Your task to perform on an android device: Open the web browser Image 0: 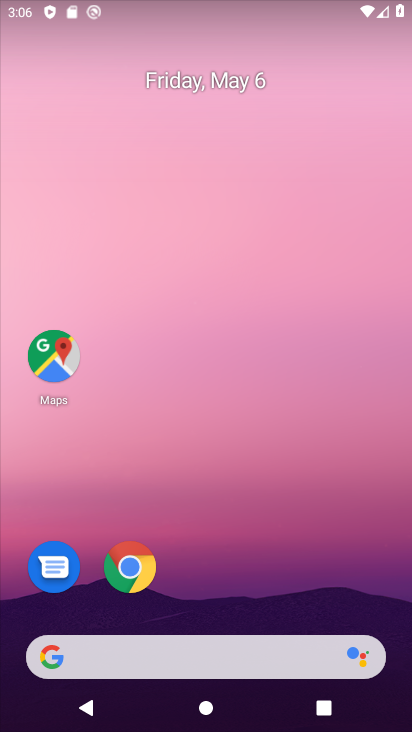
Step 0: drag from (208, 589) to (257, 391)
Your task to perform on an android device: Open the web browser Image 1: 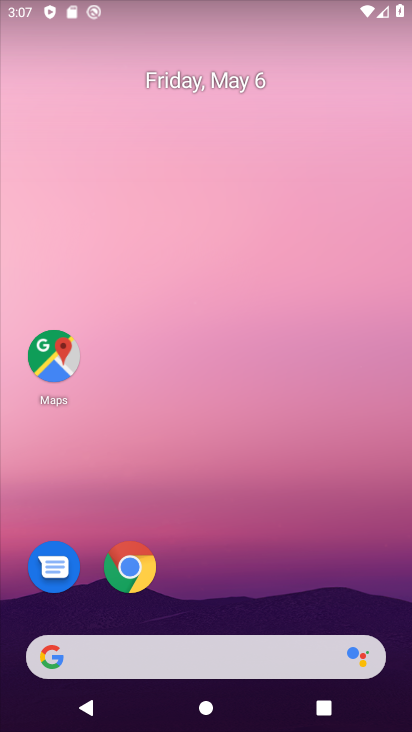
Step 1: click (133, 570)
Your task to perform on an android device: Open the web browser Image 2: 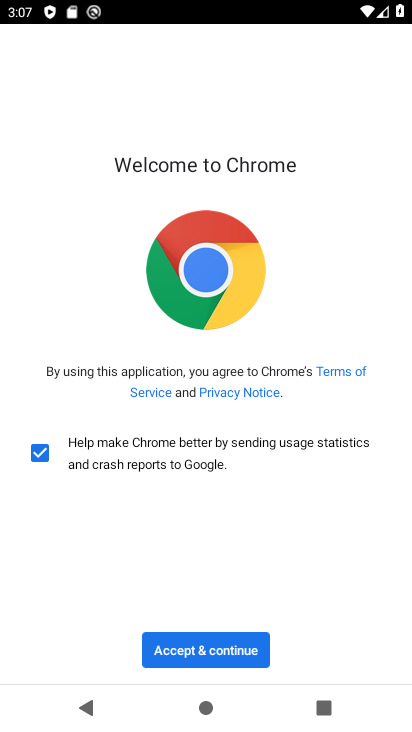
Step 2: click (199, 660)
Your task to perform on an android device: Open the web browser Image 3: 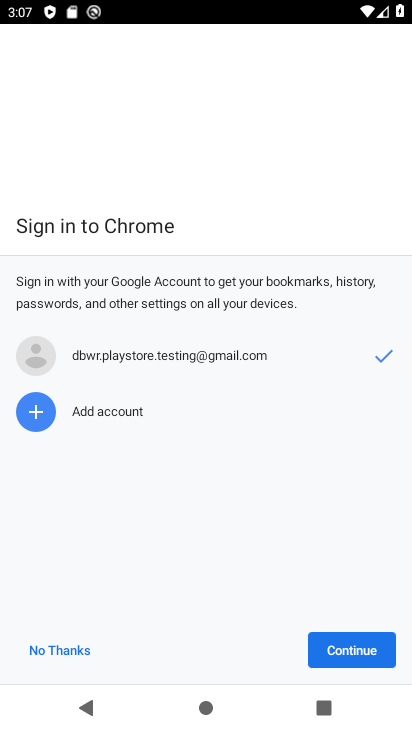
Step 3: click (339, 654)
Your task to perform on an android device: Open the web browser Image 4: 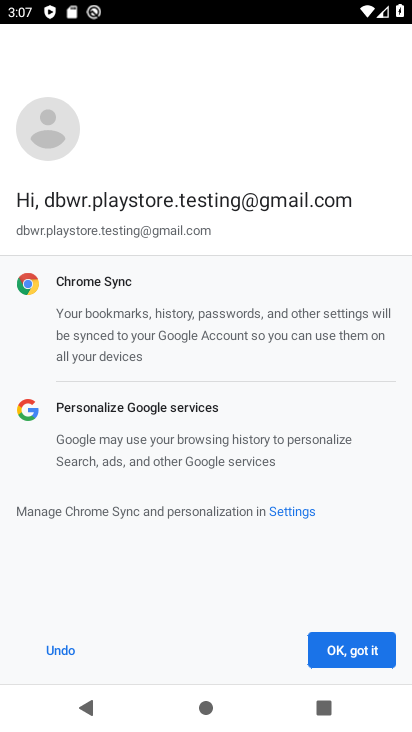
Step 4: click (340, 654)
Your task to perform on an android device: Open the web browser Image 5: 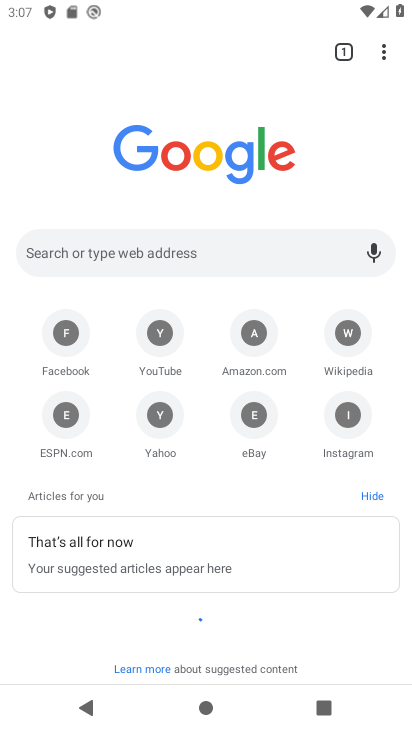
Step 5: click (57, 265)
Your task to perform on an android device: Open the web browser Image 6: 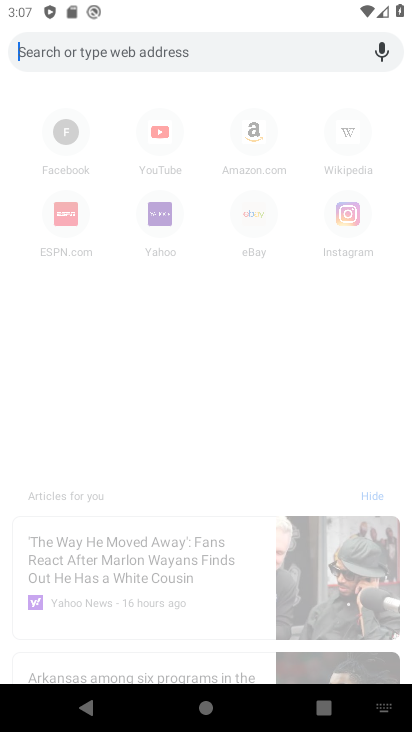
Step 6: task complete